Your task to perform on an android device: Open notification settings Image 0: 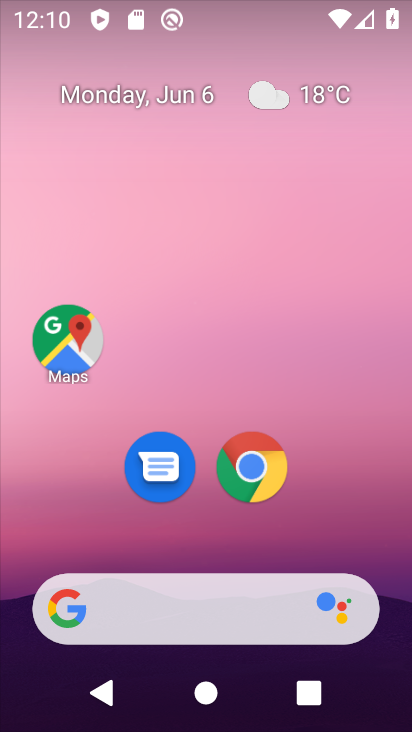
Step 0: drag from (348, 523) to (263, 91)
Your task to perform on an android device: Open notification settings Image 1: 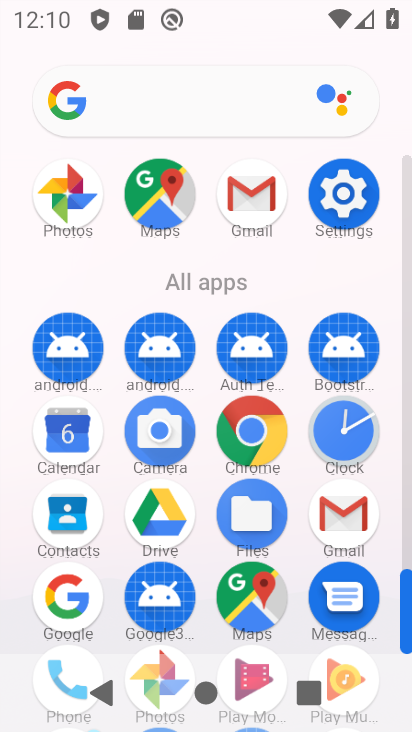
Step 1: click (342, 193)
Your task to perform on an android device: Open notification settings Image 2: 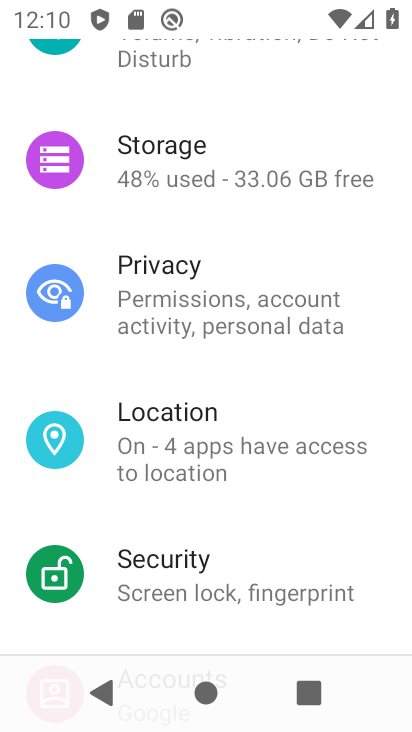
Step 2: drag from (269, 136) to (264, 263)
Your task to perform on an android device: Open notification settings Image 3: 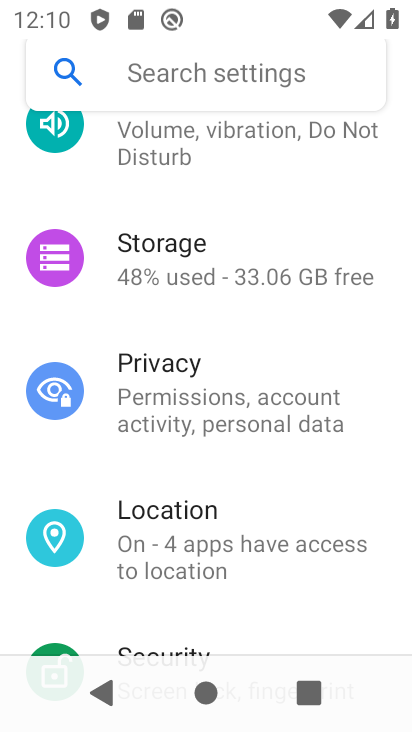
Step 3: drag from (236, 183) to (248, 350)
Your task to perform on an android device: Open notification settings Image 4: 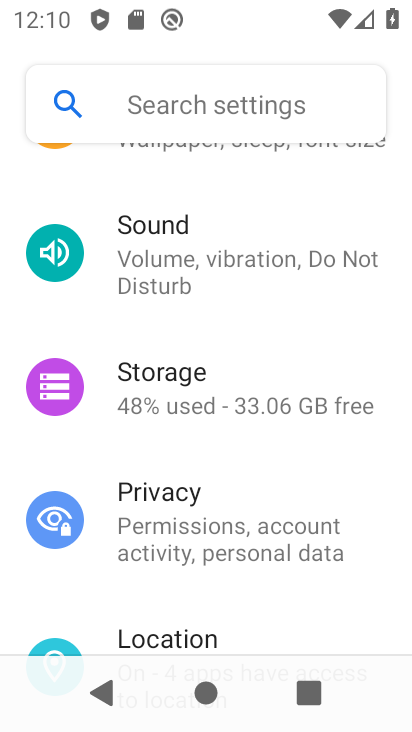
Step 4: drag from (246, 218) to (279, 365)
Your task to perform on an android device: Open notification settings Image 5: 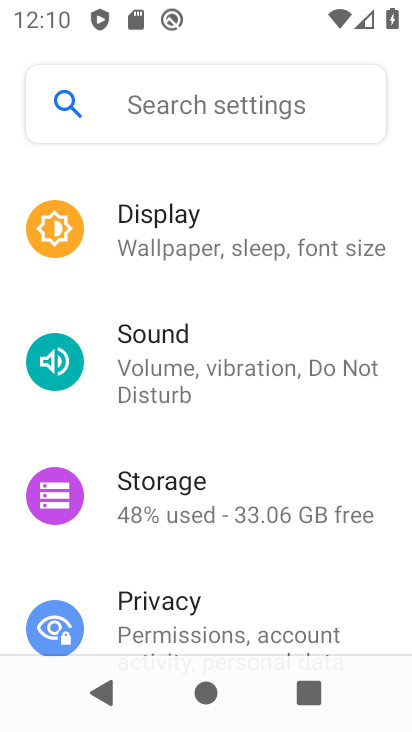
Step 5: drag from (250, 197) to (269, 358)
Your task to perform on an android device: Open notification settings Image 6: 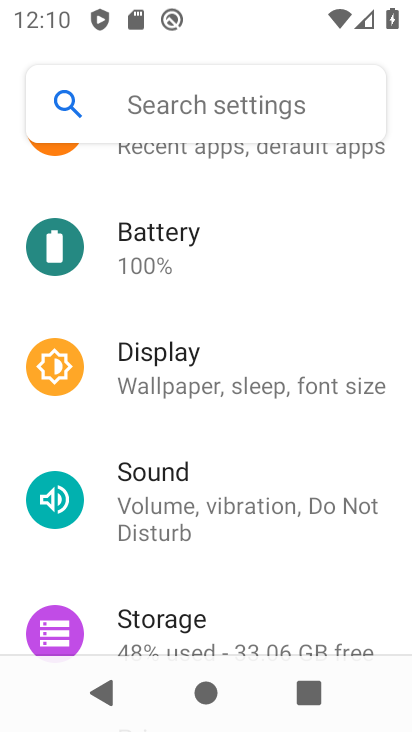
Step 6: drag from (248, 243) to (264, 360)
Your task to perform on an android device: Open notification settings Image 7: 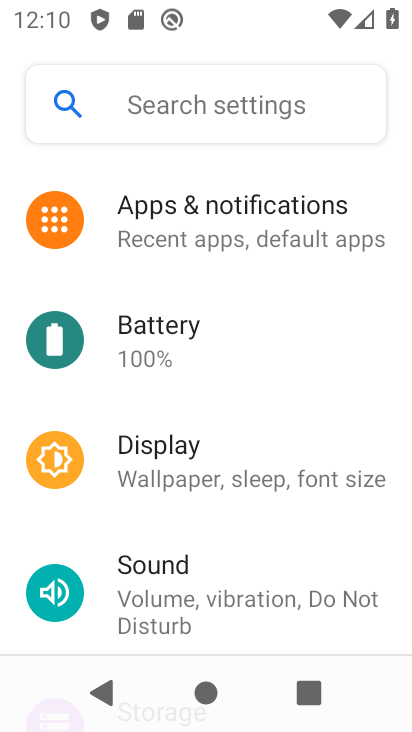
Step 7: drag from (242, 232) to (263, 349)
Your task to perform on an android device: Open notification settings Image 8: 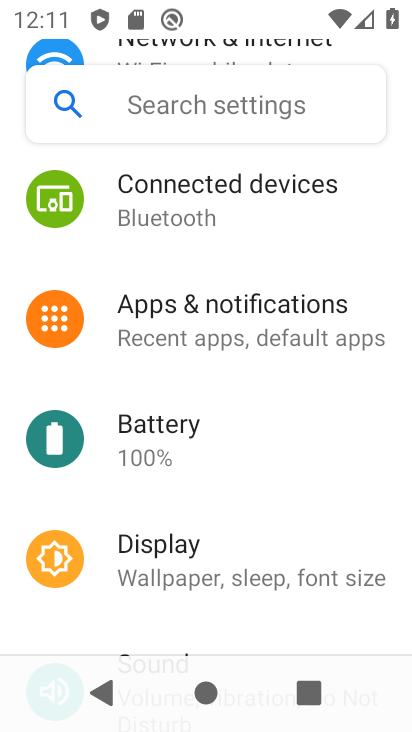
Step 8: drag from (248, 250) to (265, 369)
Your task to perform on an android device: Open notification settings Image 9: 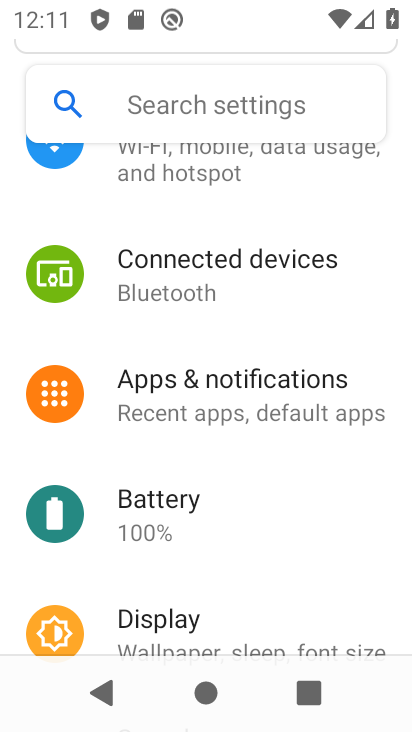
Step 9: drag from (249, 217) to (277, 343)
Your task to perform on an android device: Open notification settings Image 10: 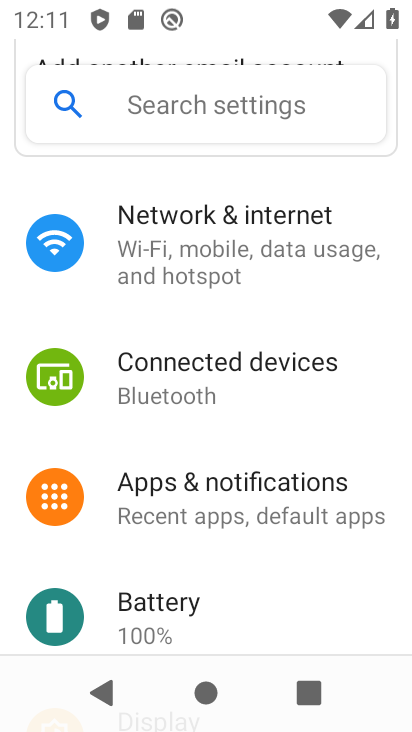
Step 10: click (283, 487)
Your task to perform on an android device: Open notification settings Image 11: 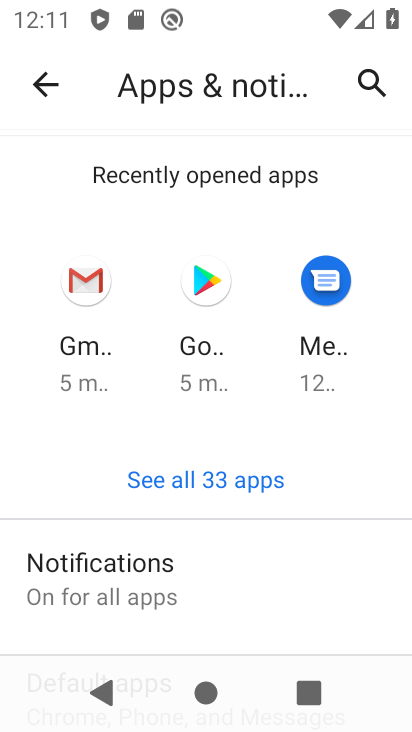
Step 11: click (148, 579)
Your task to perform on an android device: Open notification settings Image 12: 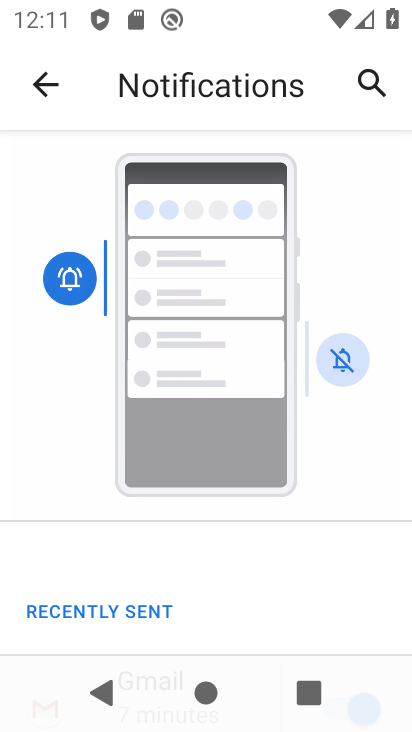
Step 12: task complete